Your task to perform on an android device: What's on my calendar today? Image 0: 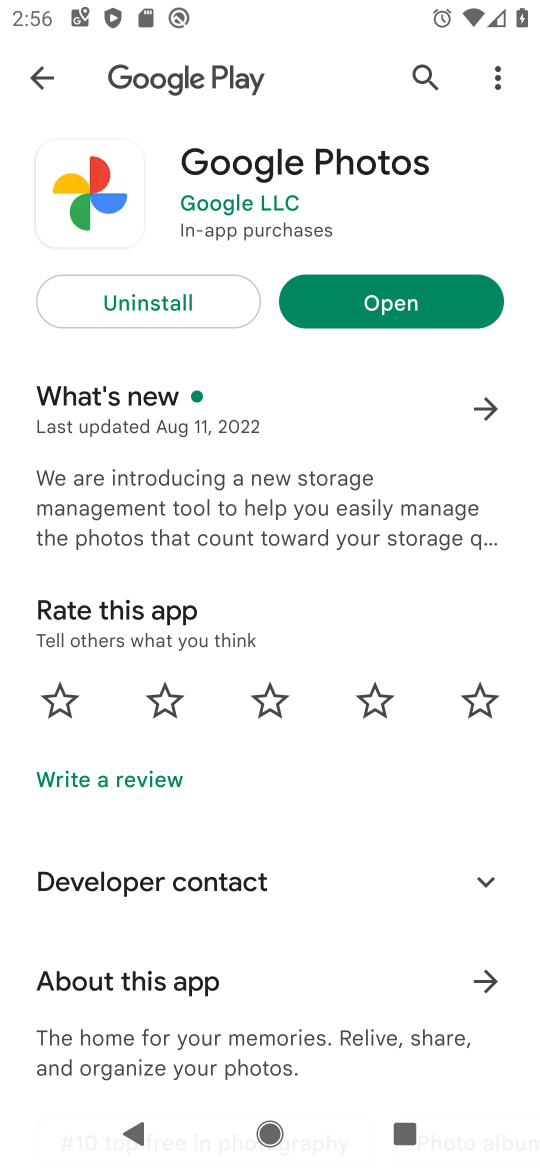
Step 0: press home button
Your task to perform on an android device: What's on my calendar today? Image 1: 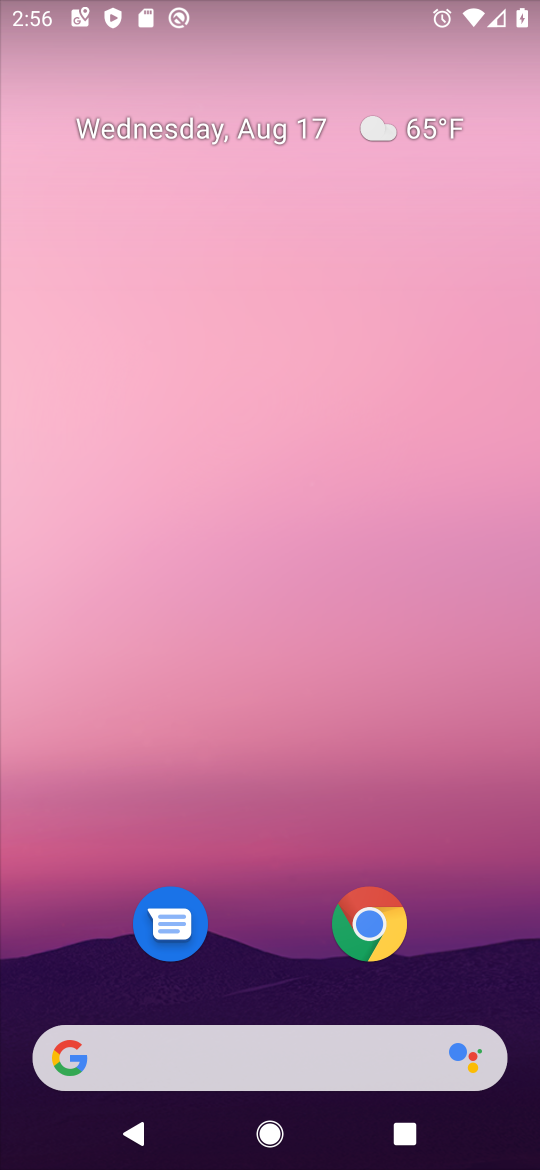
Step 1: drag from (228, 1057) to (310, 320)
Your task to perform on an android device: What's on my calendar today? Image 2: 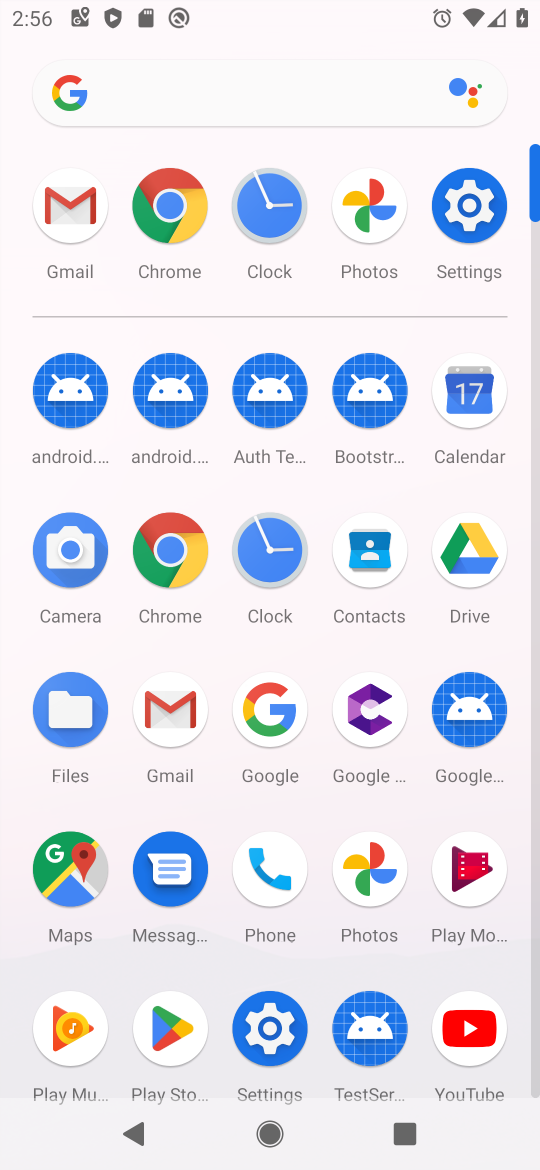
Step 2: click (471, 402)
Your task to perform on an android device: What's on my calendar today? Image 3: 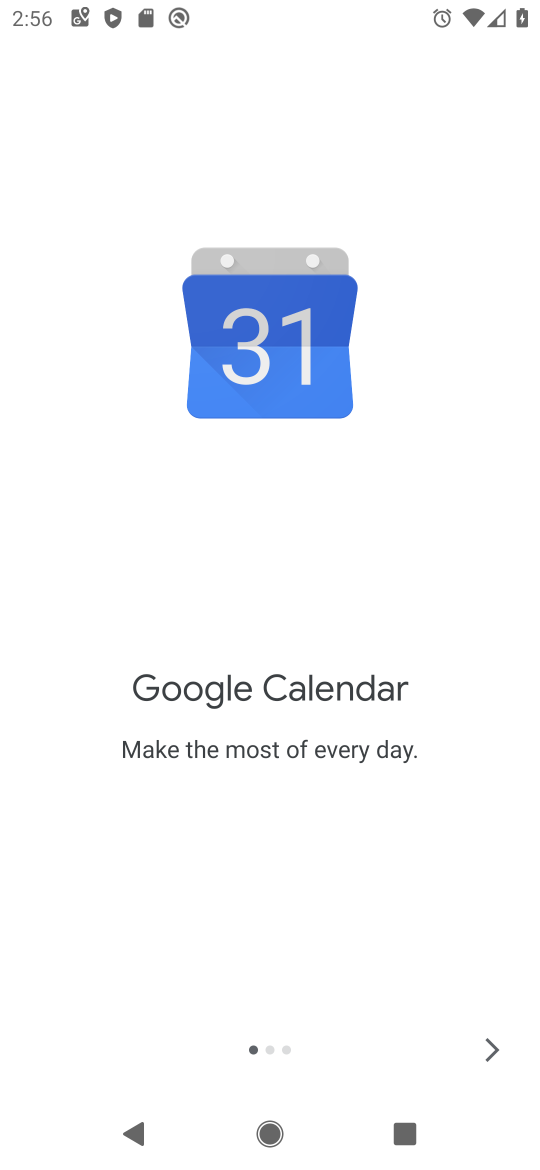
Step 3: click (498, 1060)
Your task to perform on an android device: What's on my calendar today? Image 4: 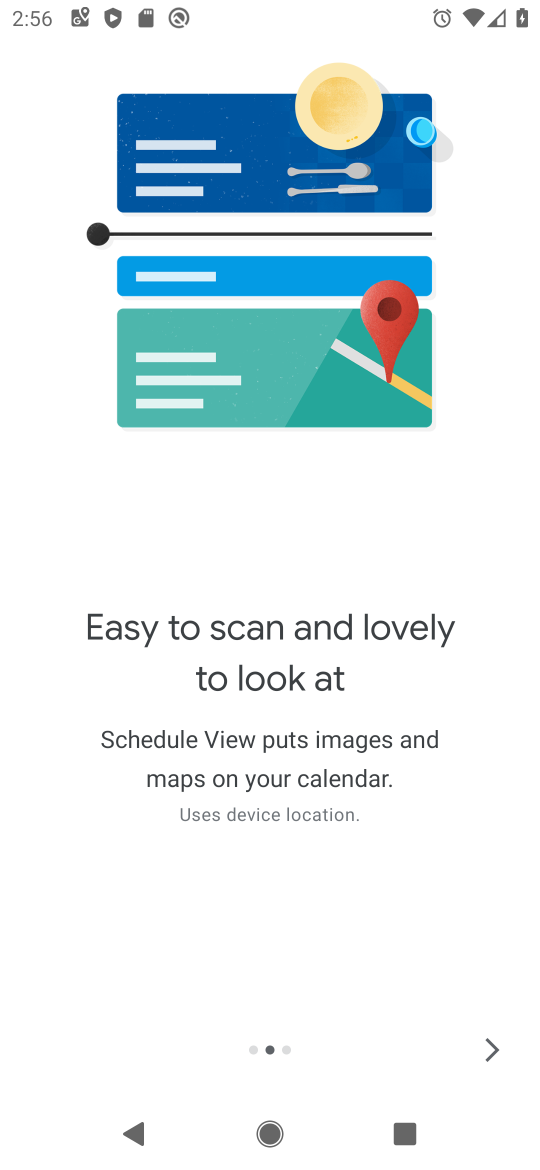
Step 4: click (498, 1060)
Your task to perform on an android device: What's on my calendar today? Image 5: 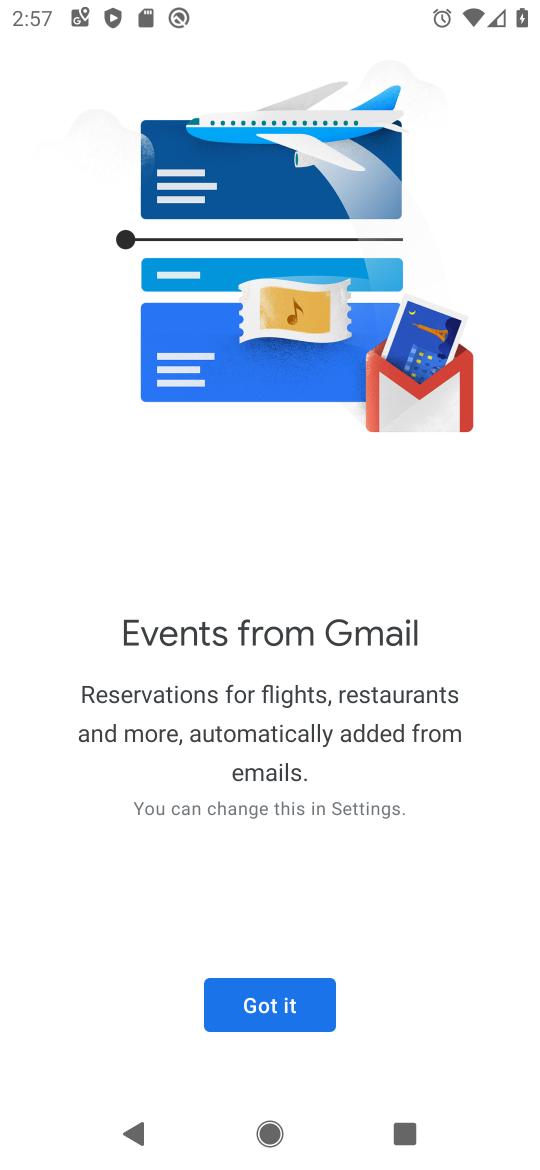
Step 5: click (281, 1015)
Your task to perform on an android device: What's on my calendar today? Image 6: 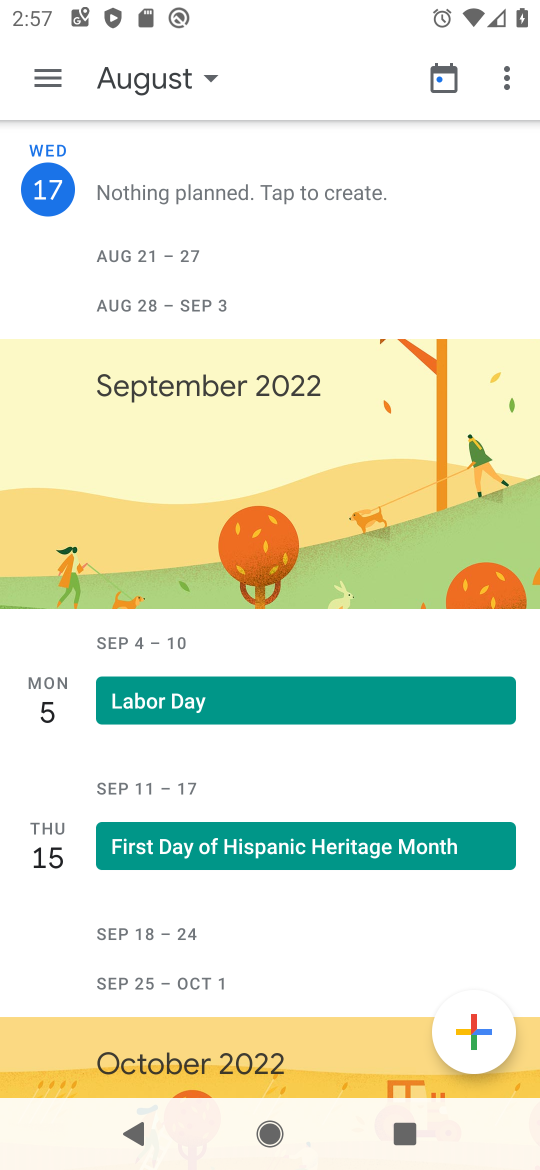
Step 6: click (51, 61)
Your task to perform on an android device: What's on my calendar today? Image 7: 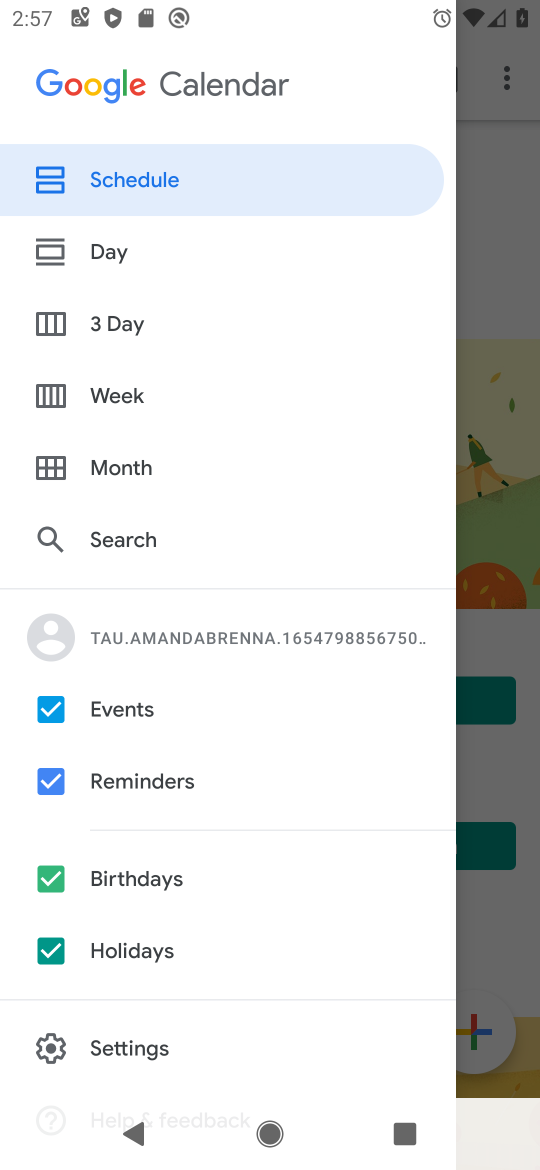
Step 7: click (134, 254)
Your task to perform on an android device: What's on my calendar today? Image 8: 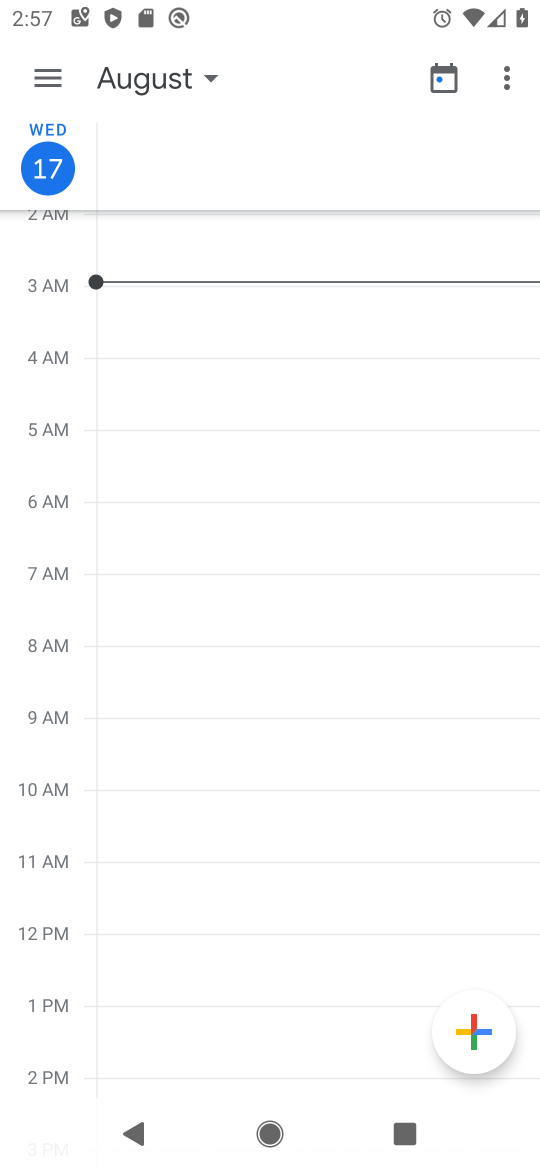
Step 8: task complete